Your task to perform on an android device: What is the recent news? Image 0: 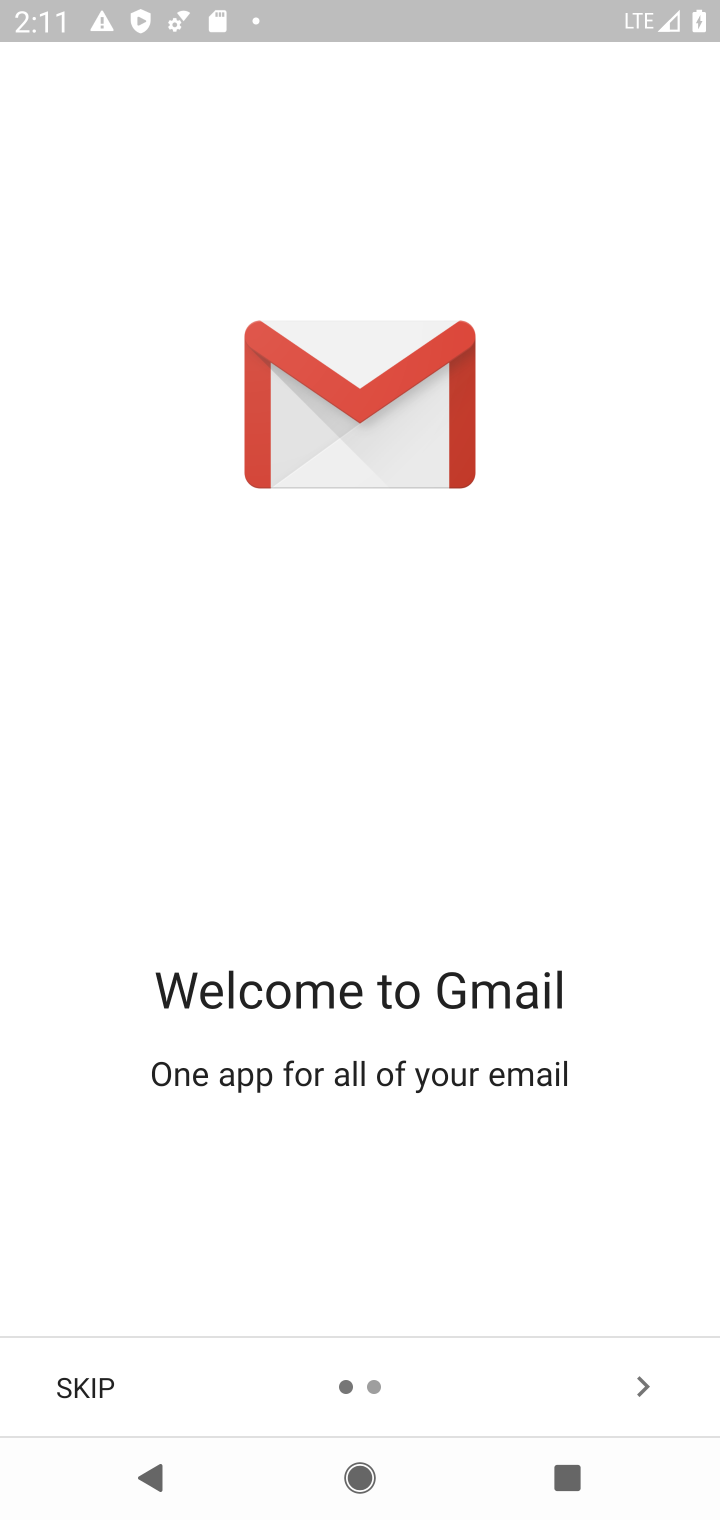
Step 0: press home button
Your task to perform on an android device: What is the recent news? Image 1: 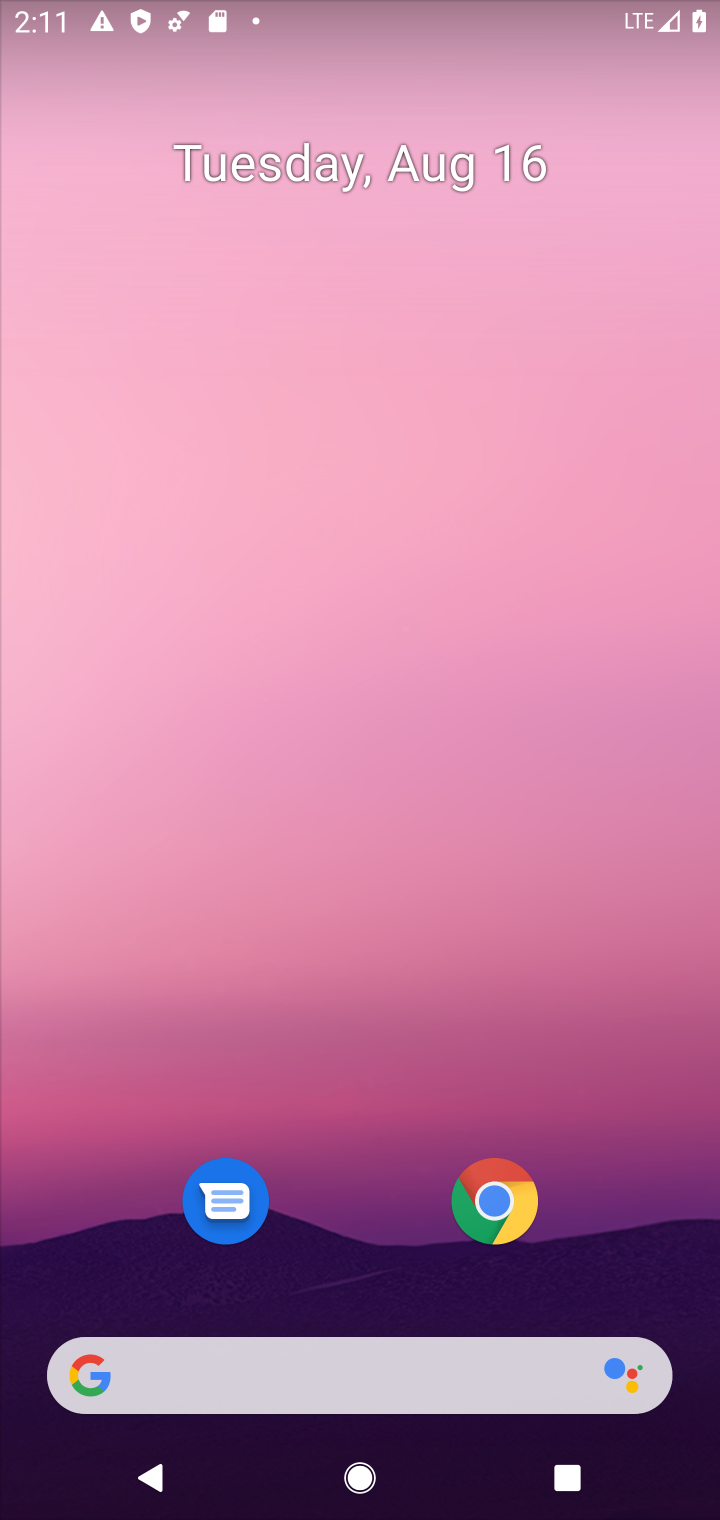
Step 1: click (94, 1359)
Your task to perform on an android device: What is the recent news? Image 2: 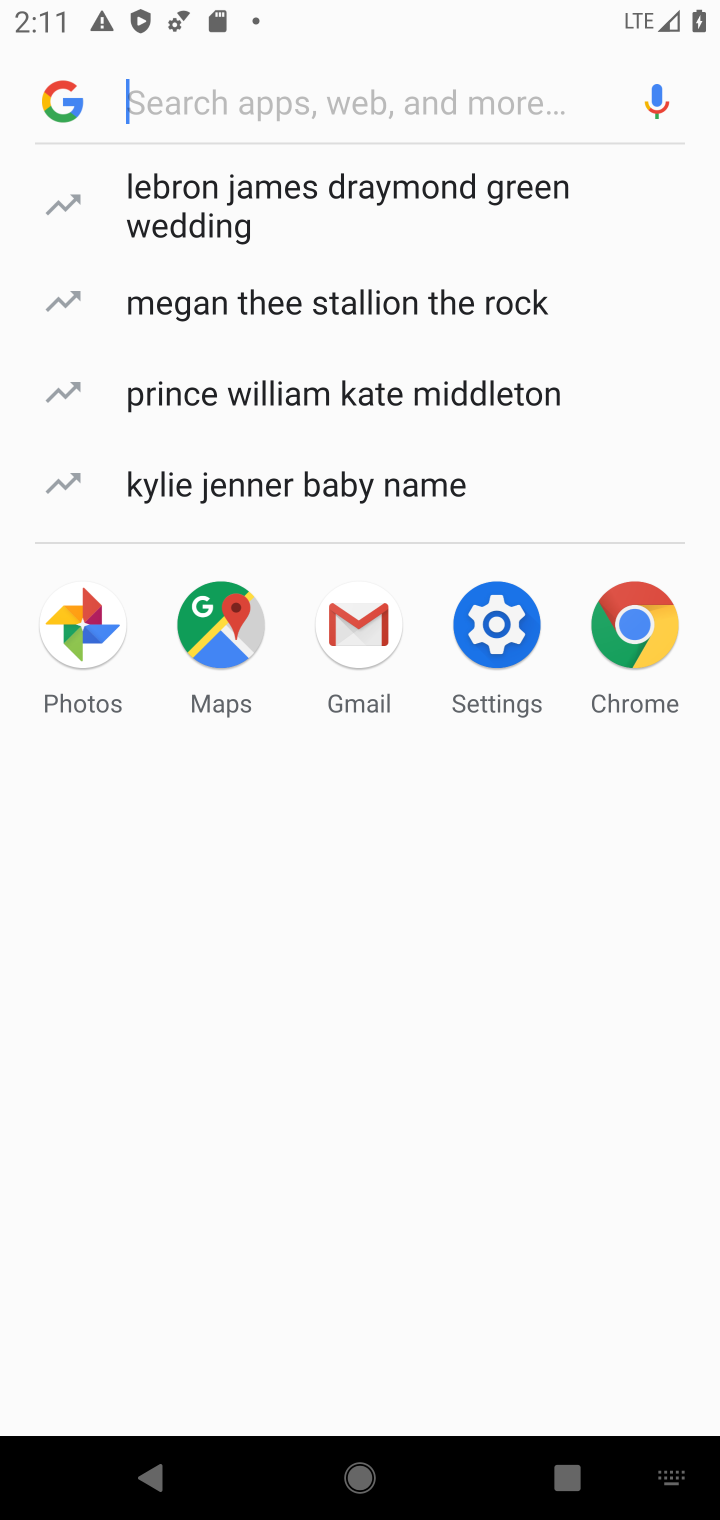
Step 2: type " recent news"
Your task to perform on an android device: What is the recent news? Image 3: 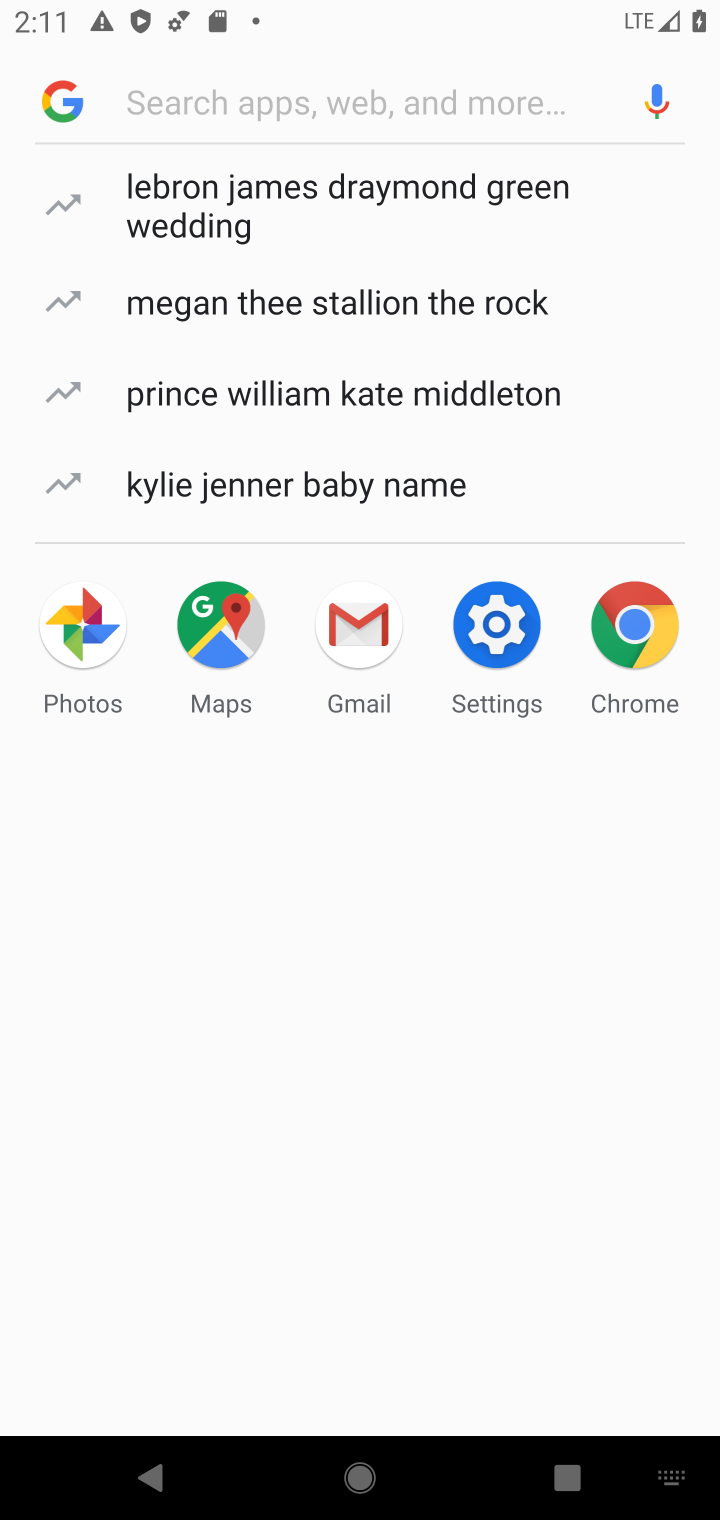
Step 3: click (226, 93)
Your task to perform on an android device: What is the recent news? Image 4: 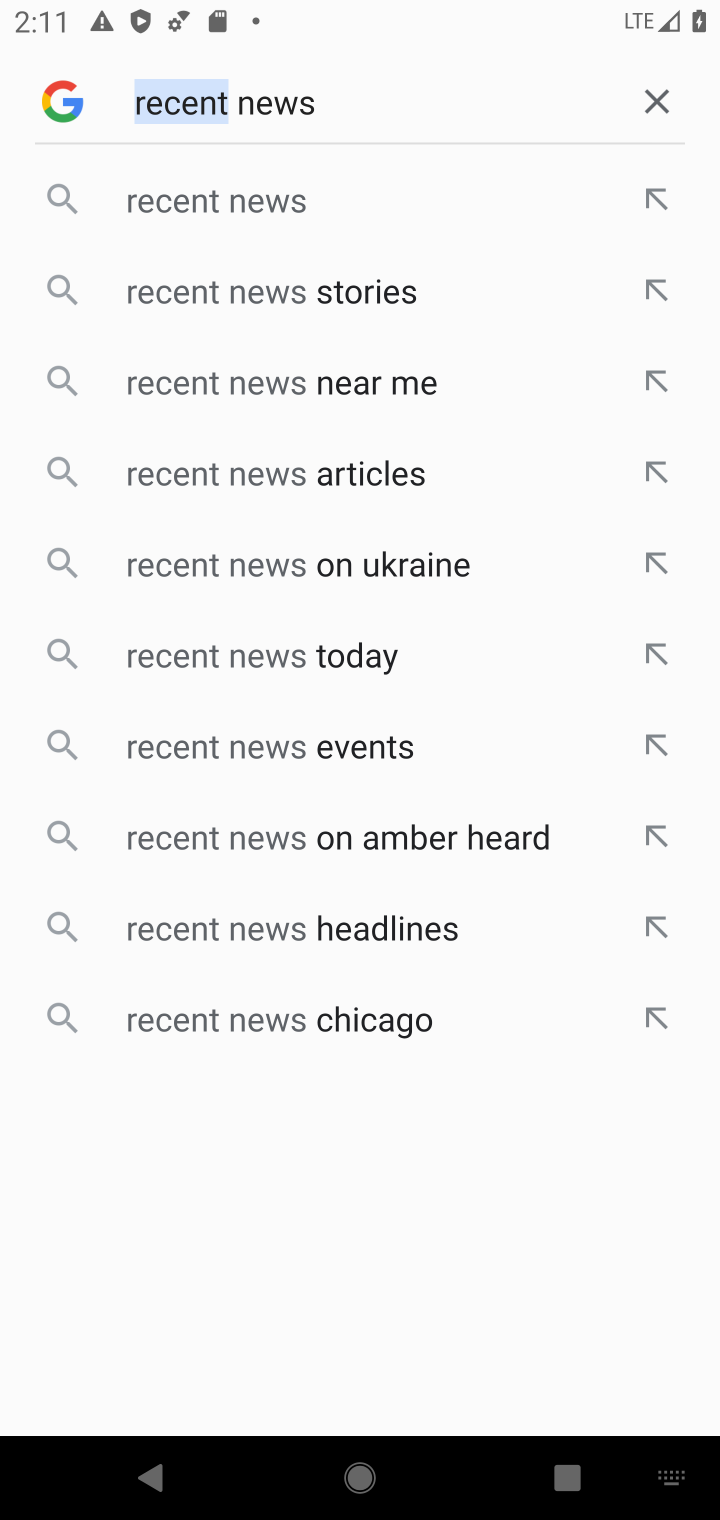
Step 4: click (256, 102)
Your task to perform on an android device: What is the recent news? Image 5: 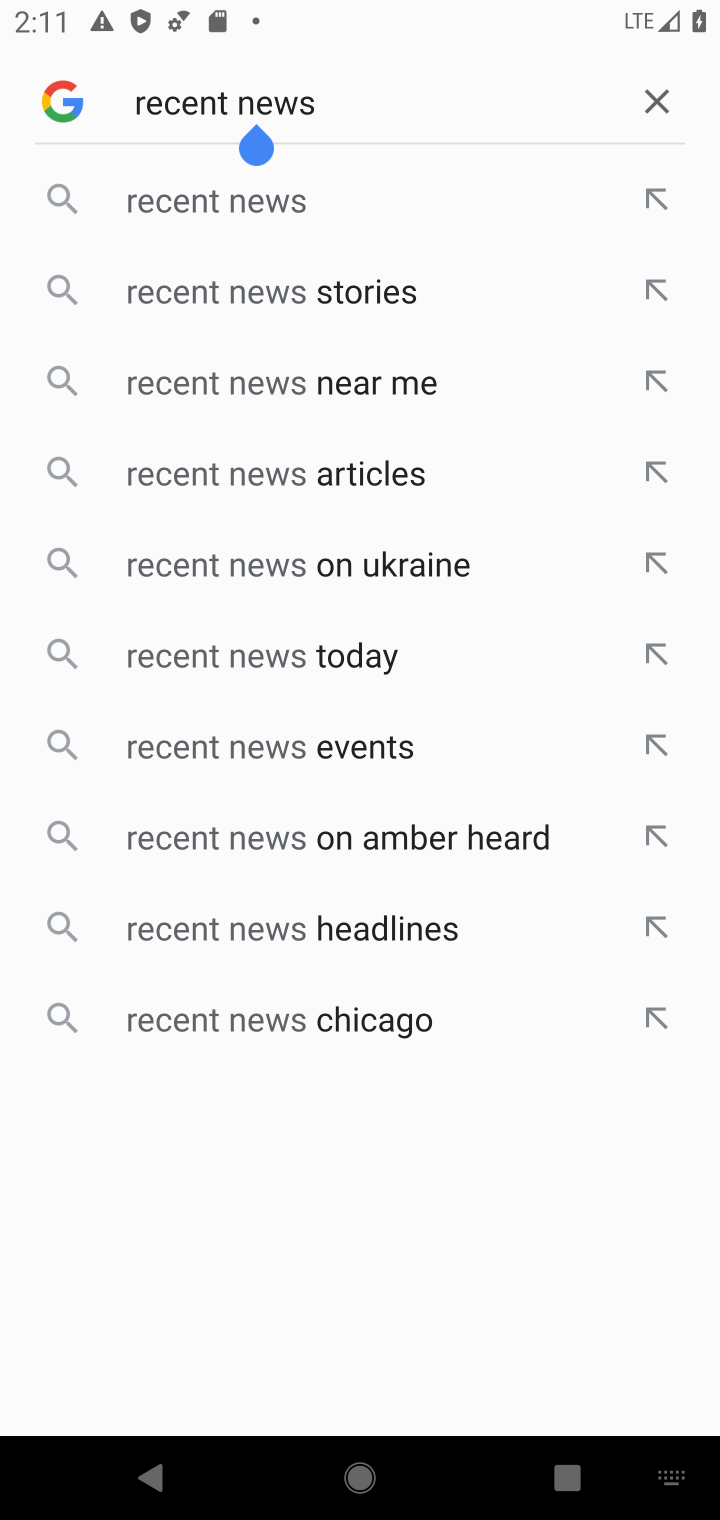
Step 5: press enter
Your task to perform on an android device: What is the recent news? Image 6: 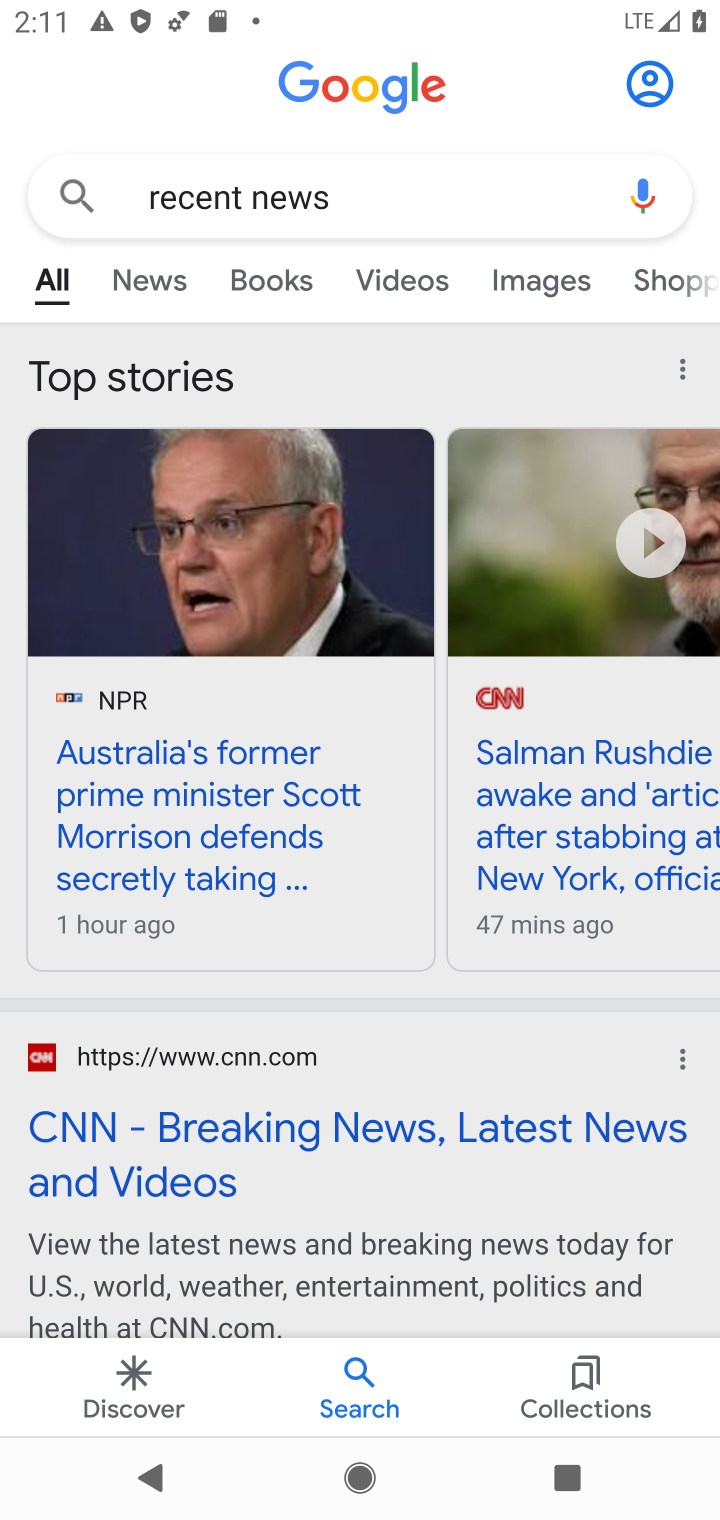
Step 6: task complete